Your task to perform on an android device: make emails show in primary in the gmail app Image 0: 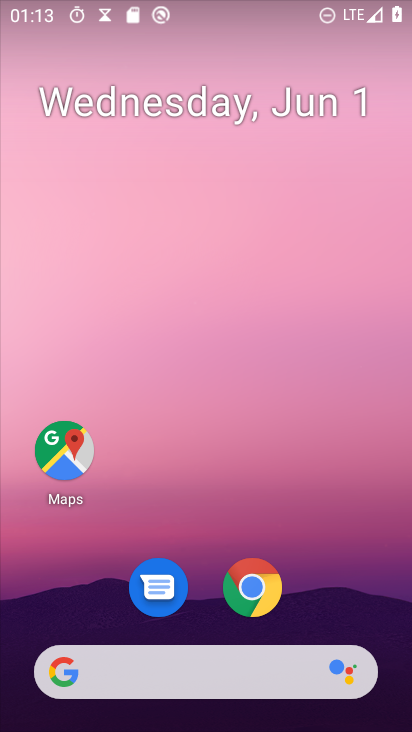
Step 0: drag from (302, 620) to (307, 27)
Your task to perform on an android device: make emails show in primary in the gmail app Image 1: 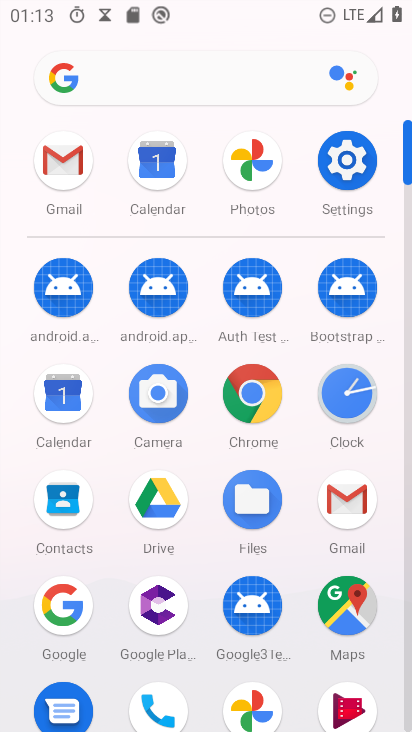
Step 1: click (341, 496)
Your task to perform on an android device: make emails show in primary in the gmail app Image 2: 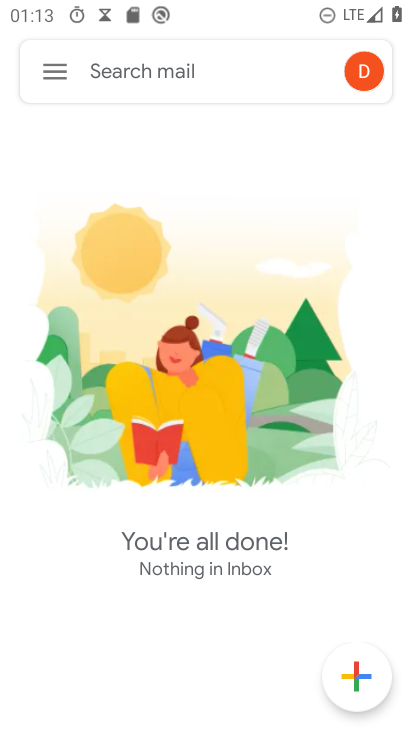
Step 2: click (39, 73)
Your task to perform on an android device: make emails show in primary in the gmail app Image 3: 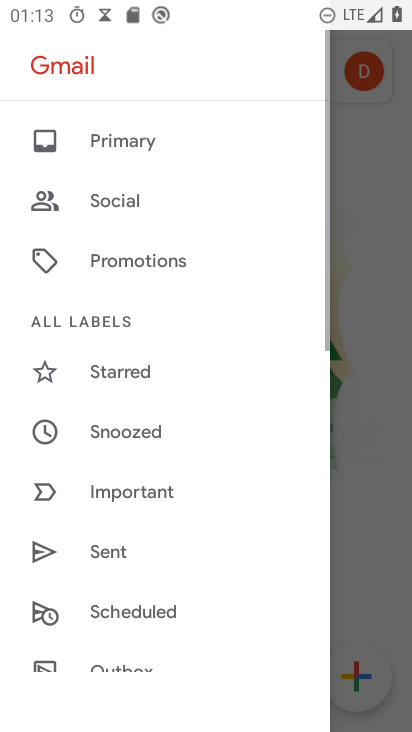
Step 3: drag from (112, 617) to (139, 142)
Your task to perform on an android device: make emails show in primary in the gmail app Image 4: 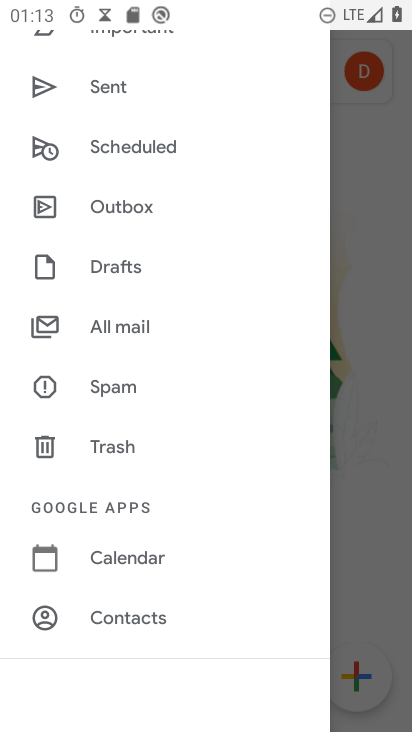
Step 4: drag from (105, 593) to (121, 94)
Your task to perform on an android device: make emails show in primary in the gmail app Image 5: 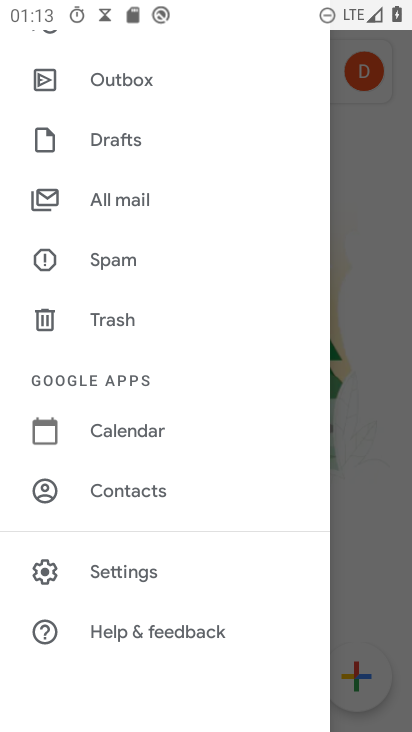
Step 5: click (137, 573)
Your task to perform on an android device: make emails show in primary in the gmail app Image 6: 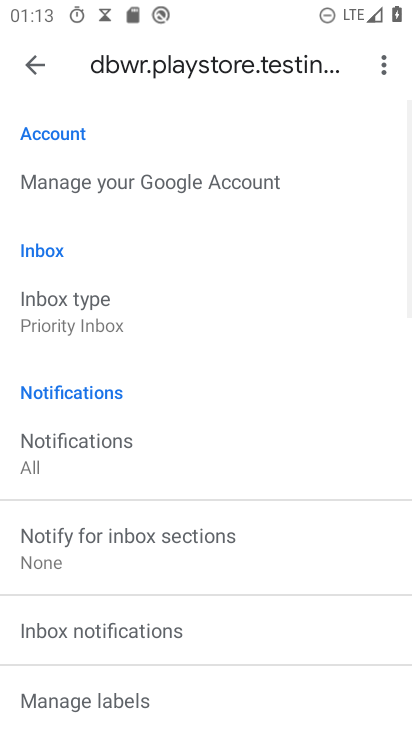
Step 6: click (110, 308)
Your task to perform on an android device: make emails show in primary in the gmail app Image 7: 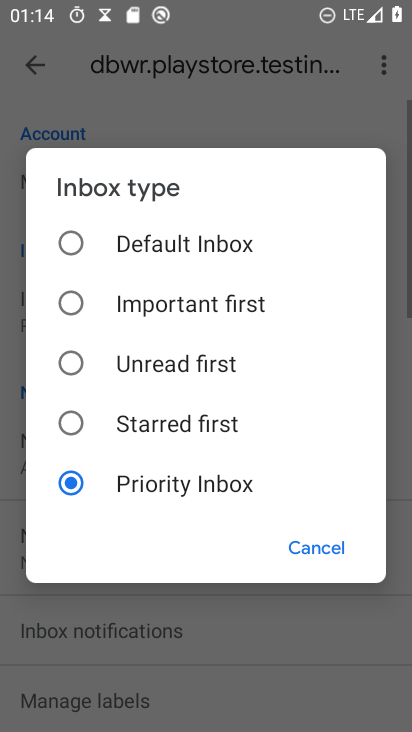
Step 7: click (115, 265)
Your task to perform on an android device: make emails show in primary in the gmail app Image 8: 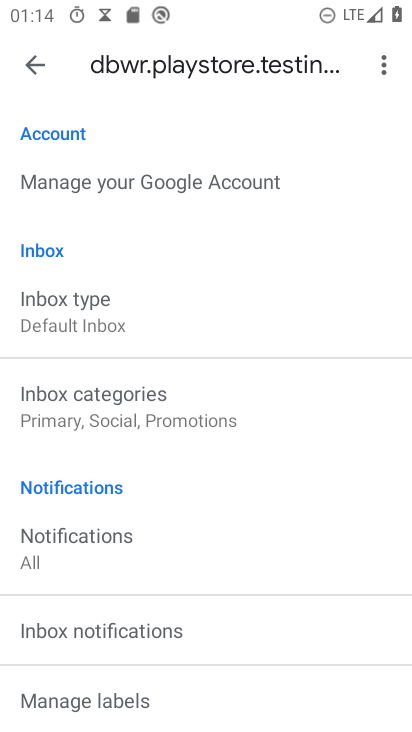
Step 8: task complete